Your task to perform on an android device: What's the weather? Image 0: 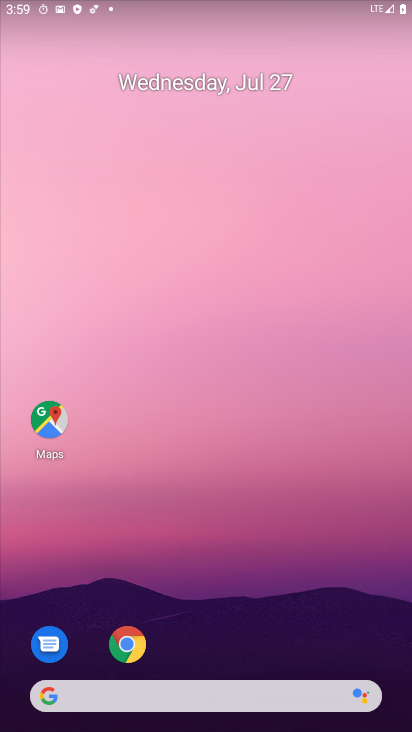
Step 0: drag from (175, 714) to (227, 226)
Your task to perform on an android device: What's the weather? Image 1: 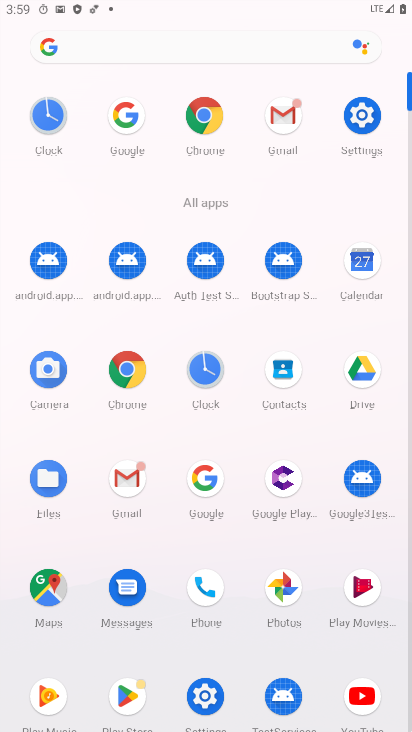
Step 1: click (210, 475)
Your task to perform on an android device: What's the weather? Image 2: 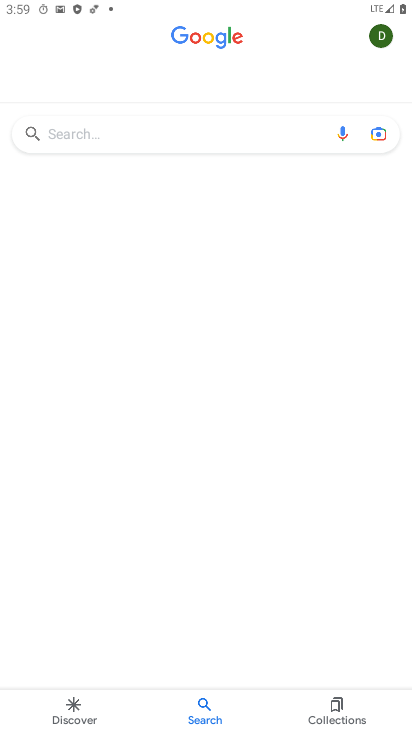
Step 2: click (121, 126)
Your task to perform on an android device: What's the weather? Image 3: 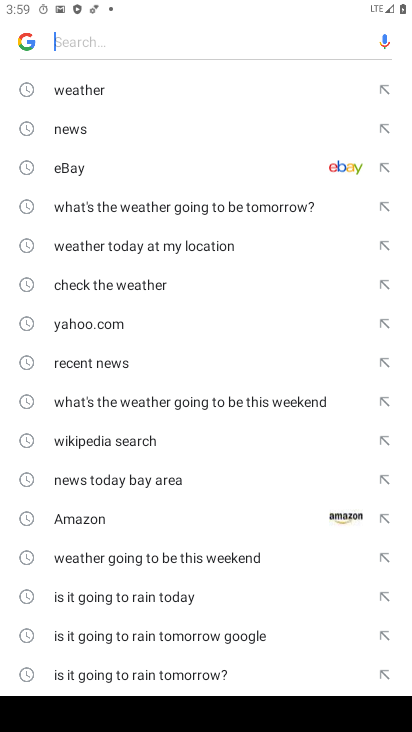
Step 3: click (82, 90)
Your task to perform on an android device: What's the weather? Image 4: 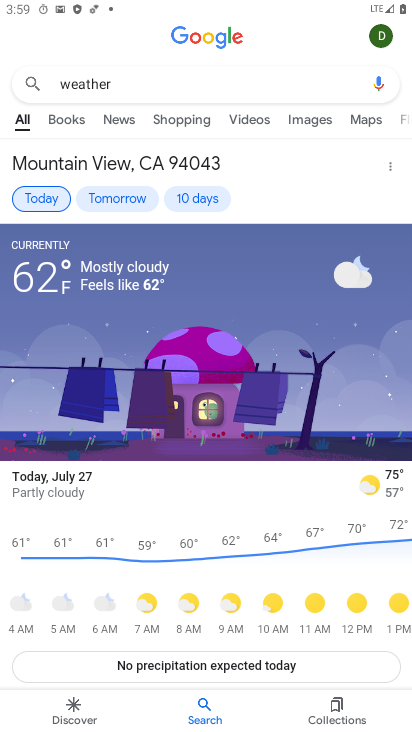
Step 4: click (37, 198)
Your task to perform on an android device: What's the weather? Image 5: 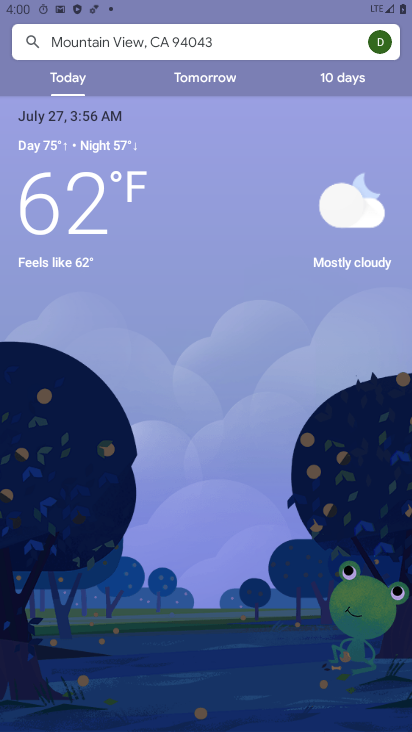
Step 5: task complete